Your task to perform on an android device: turn smart compose on in the gmail app Image 0: 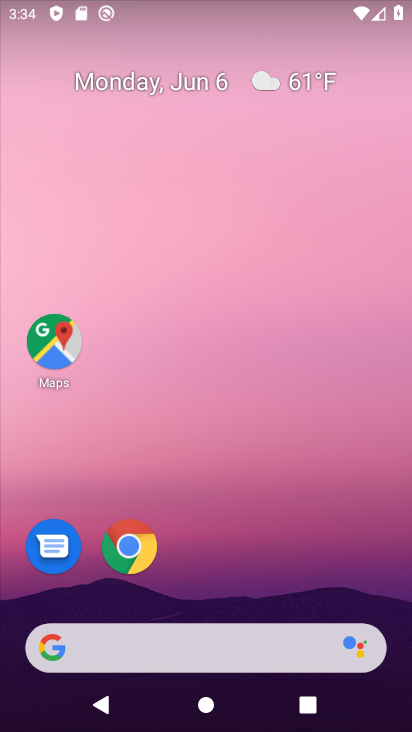
Step 0: click (232, 112)
Your task to perform on an android device: turn smart compose on in the gmail app Image 1: 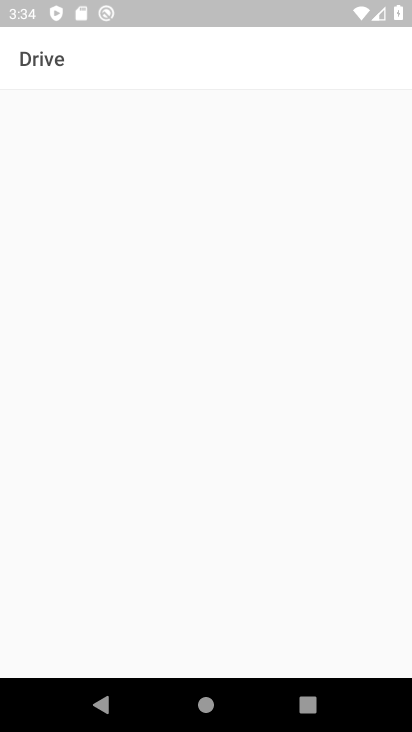
Step 1: press home button
Your task to perform on an android device: turn smart compose on in the gmail app Image 2: 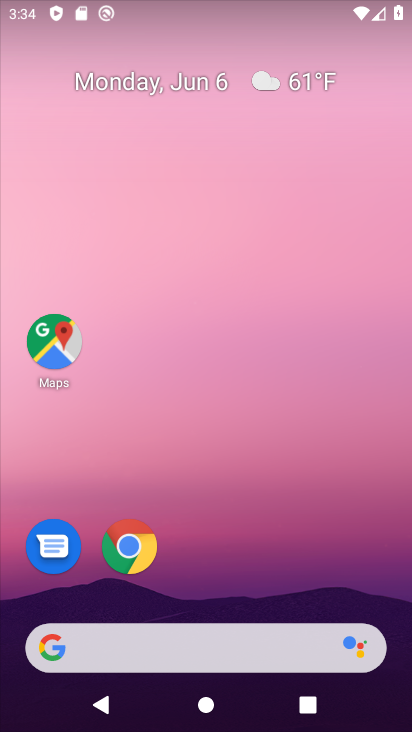
Step 2: drag from (246, 721) to (247, 183)
Your task to perform on an android device: turn smart compose on in the gmail app Image 3: 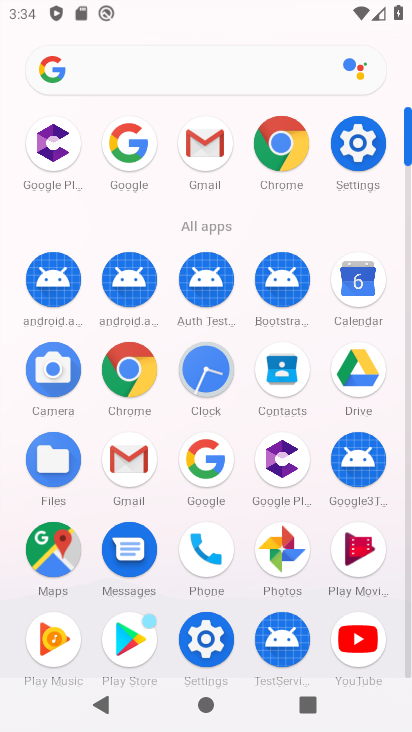
Step 3: click (126, 463)
Your task to perform on an android device: turn smart compose on in the gmail app Image 4: 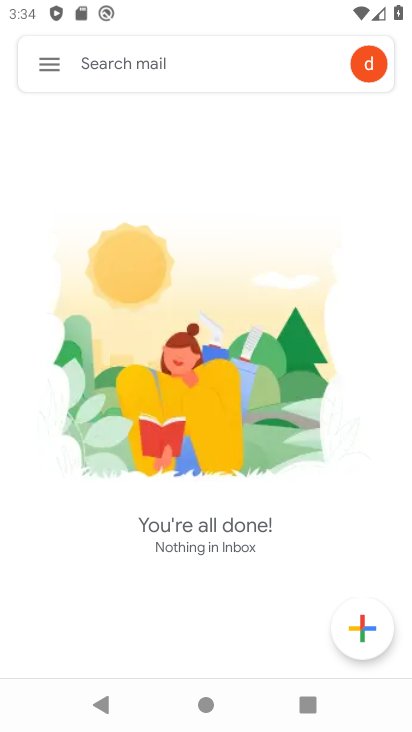
Step 4: click (54, 66)
Your task to perform on an android device: turn smart compose on in the gmail app Image 5: 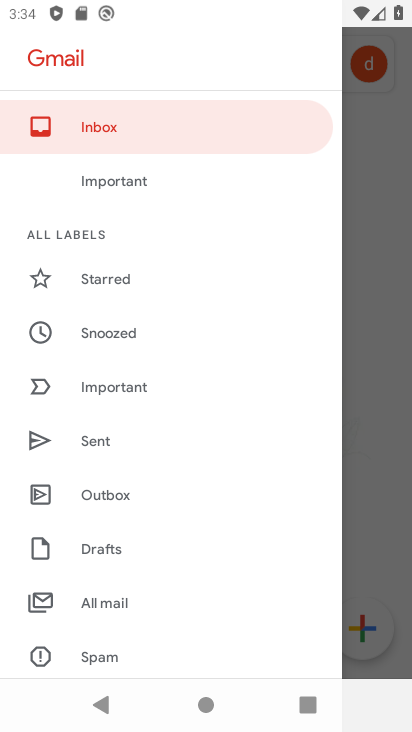
Step 5: drag from (133, 646) to (143, 255)
Your task to perform on an android device: turn smart compose on in the gmail app Image 6: 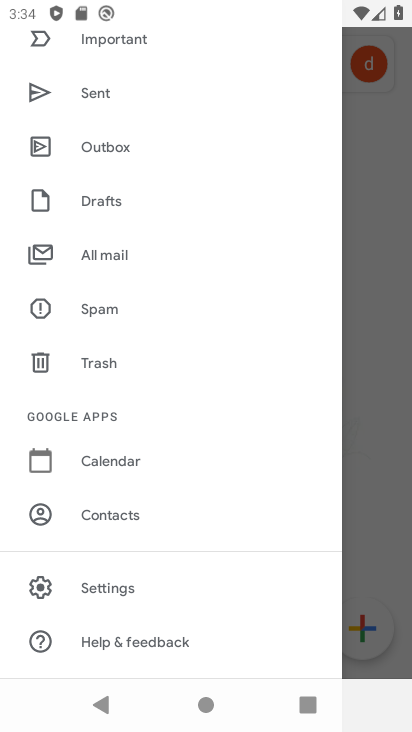
Step 6: click (118, 591)
Your task to perform on an android device: turn smart compose on in the gmail app Image 7: 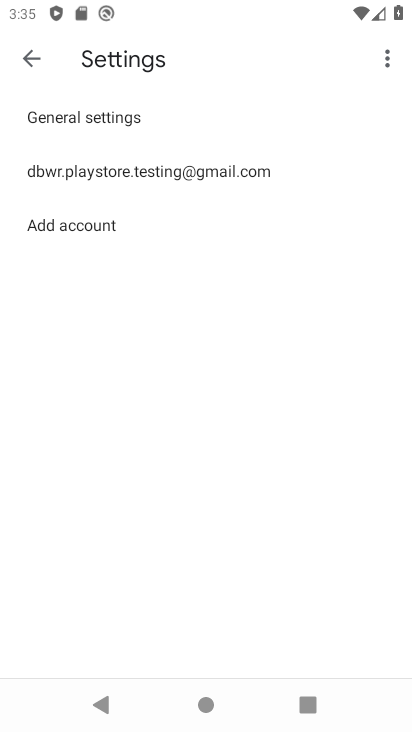
Step 7: click (123, 180)
Your task to perform on an android device: turn smart compose on in the gmail app Image 8: 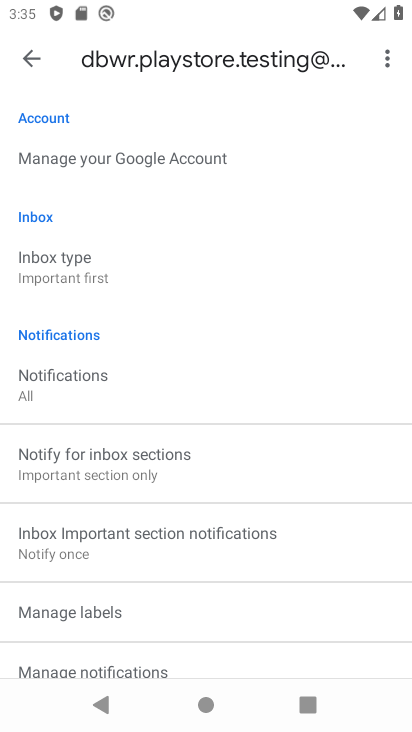
Step 8: task complete